Your task to perform on an android device: toggle wifi Image 0: 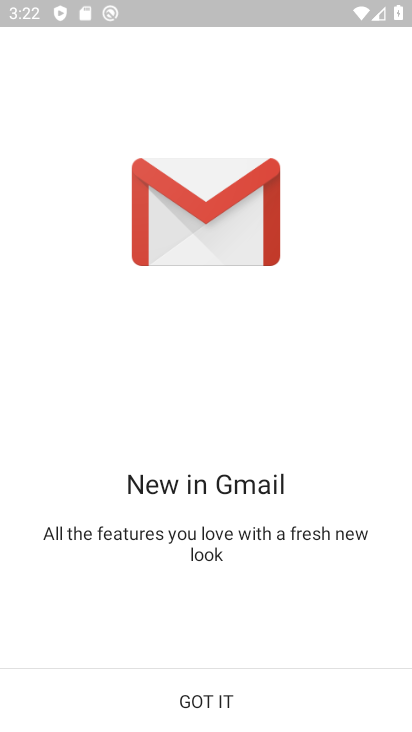
Step 0: press home button
Your task to perform on an android device: toggle wifi Image 1: 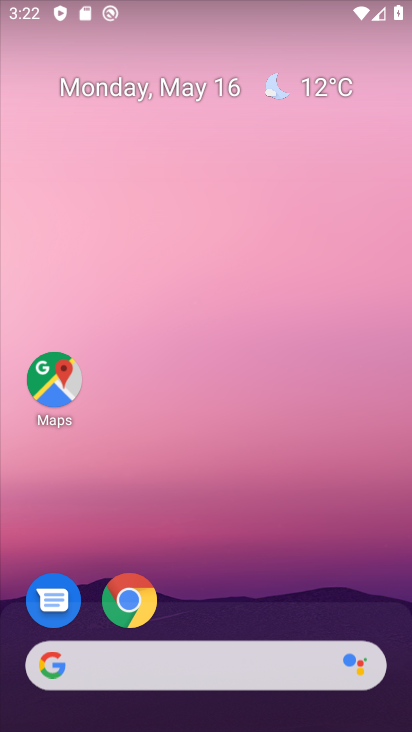
Step 1: drag from (304, 710) to (326, 147)
Your task to perform on an android device: toggle wifi Image 2: 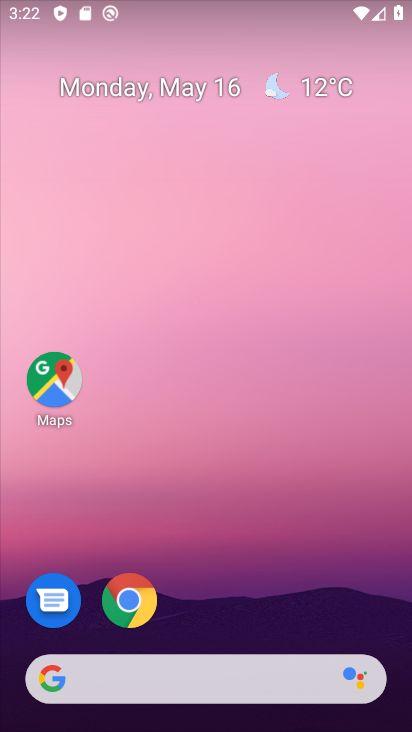
Step 2: drag from (263, 723) to (342, 47)
Your task to perform on an android device: toggle wifi Image 3: 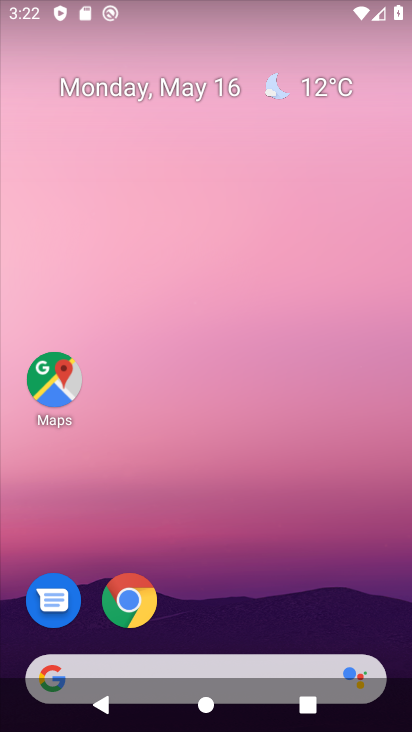
Step 3: drag from (280, 696) to (328, 203)
Your task to perform on an android device: toggle wifi Image 4: 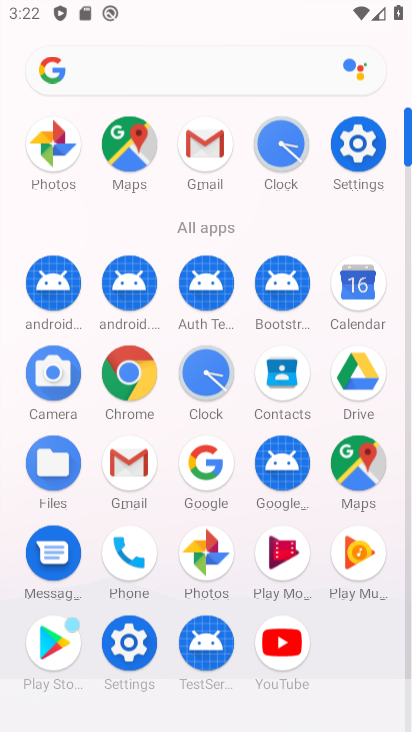
Step 4: drag from (366, 678) to (370, 278)
Your task to perform on an android device: toggle wifi Image 5: 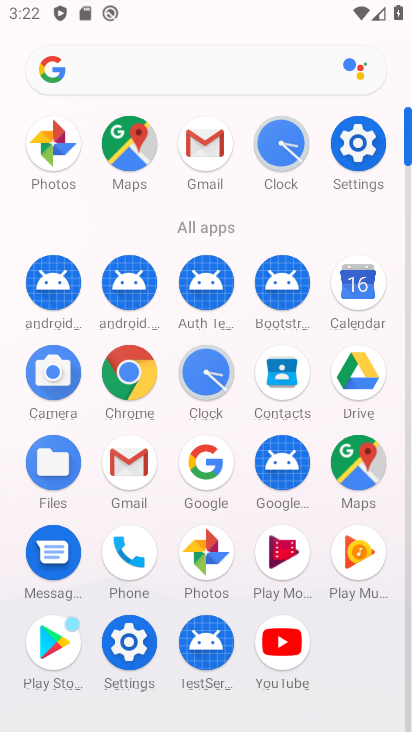
Step 5: click (359, 158)
Your task to perform on an android device: toggle wifi Image 6: 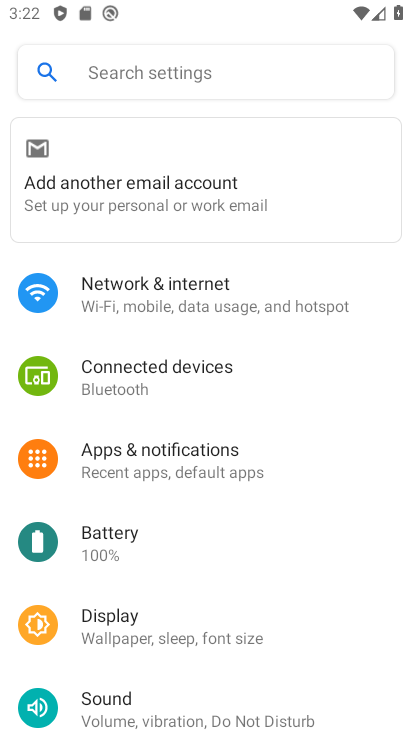
Step 6: click (246, 197)
Your task to perform on an android device: toggle wifi Image 7: 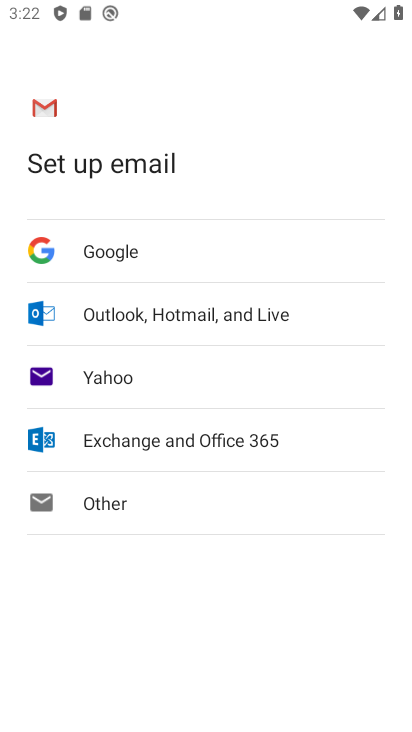
Step 7: press back button
Your task to perform on an android device: toggle wifi Image 8: 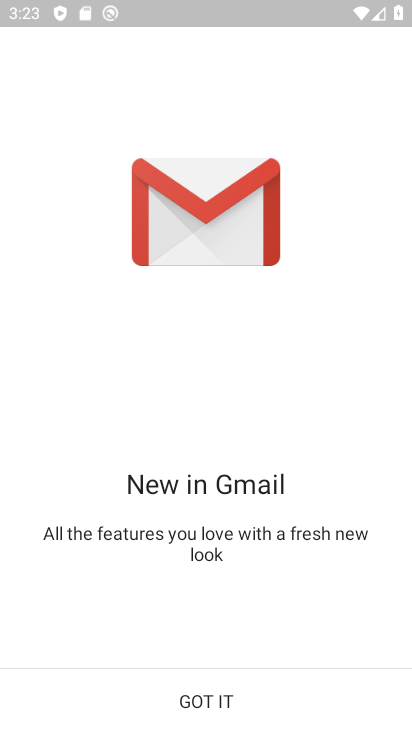
Step 8: press back button
Your task to perform on an android device: toggle wifi Image 9: 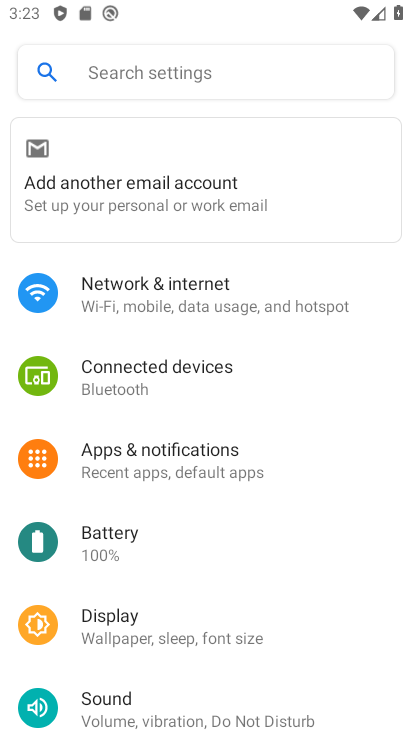
Step 9: click (165, 289)
Your task to perform on an android device: toggle wifi Image 10: 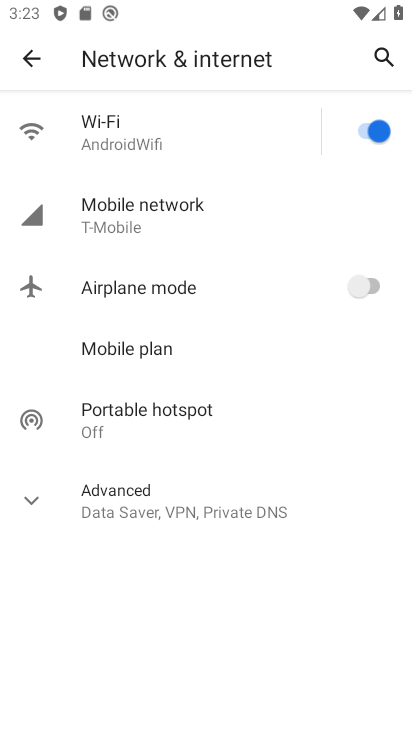
Step 10: click (366, 133)
Your task to perform on an android device: toggle wifi Image 11: 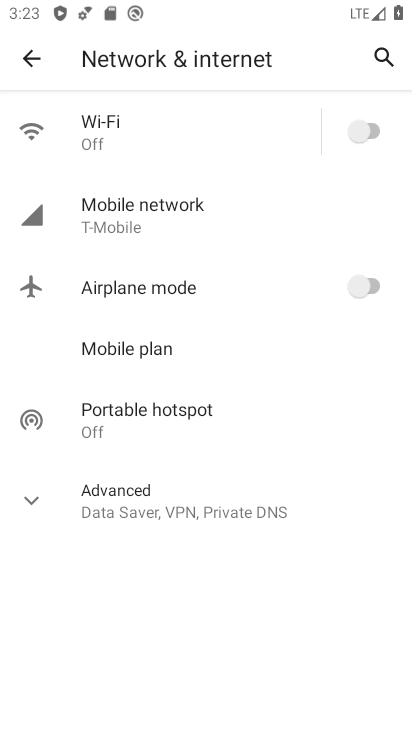
Step 11: task complete